Your task to perform on an android device: Open sound settings Image 0: 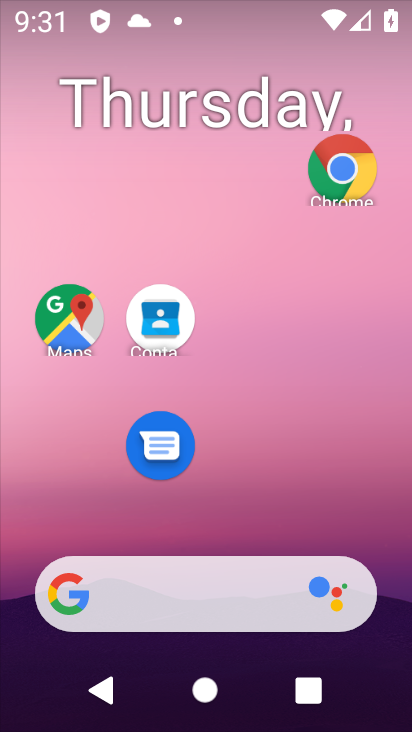
Step 0: drag from (216, 640) to (158, 266)
Your task to perform on an android device: Open sound settings Image 1: 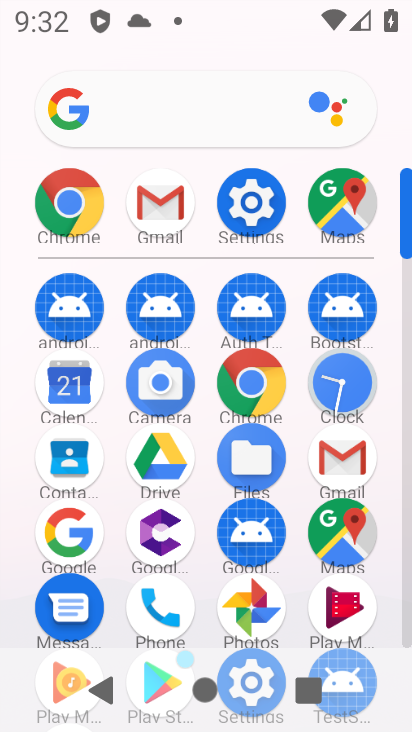
Step 1: click (250, 206)
Your task to perform on an android device: Open sound settings Image 2: 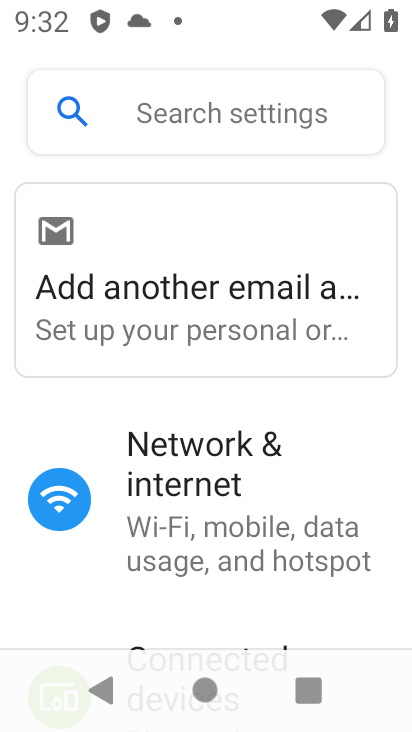
Step 2: click (229, 118)
Your task to perform on an android device: Open sound settings Image 3: 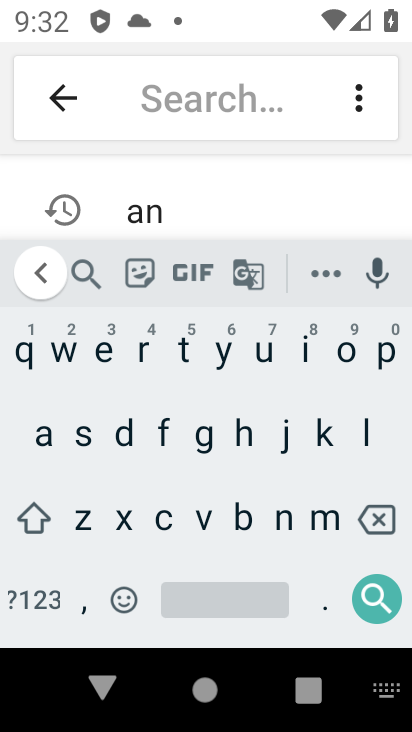
Step 3: click (78, 433)
Your task to perform on an android device: Open sound settings Image 4: 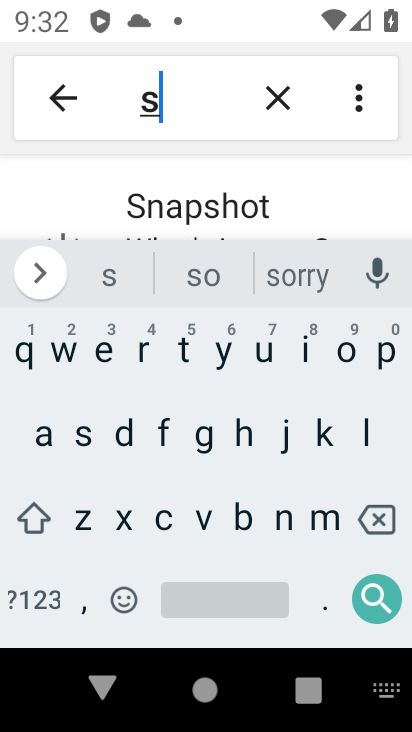
Step 4: click (338, 360)
Your task to perform on an android device: Open sound settings Image 5: 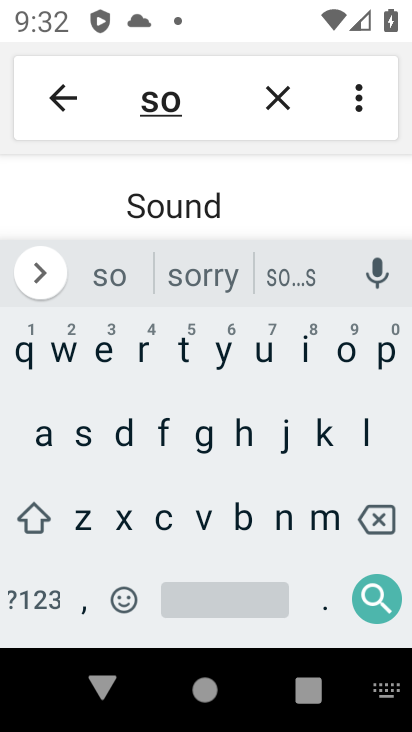
Step 5: click (208, 193)
Your task to perform on an android device: Open sound settings Image 6: 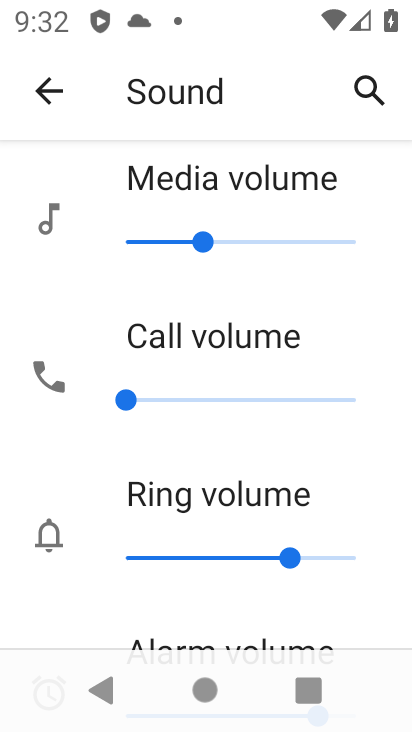
Step 6: task complete